Your task to perform on an android device: What's the weather? Image 0: 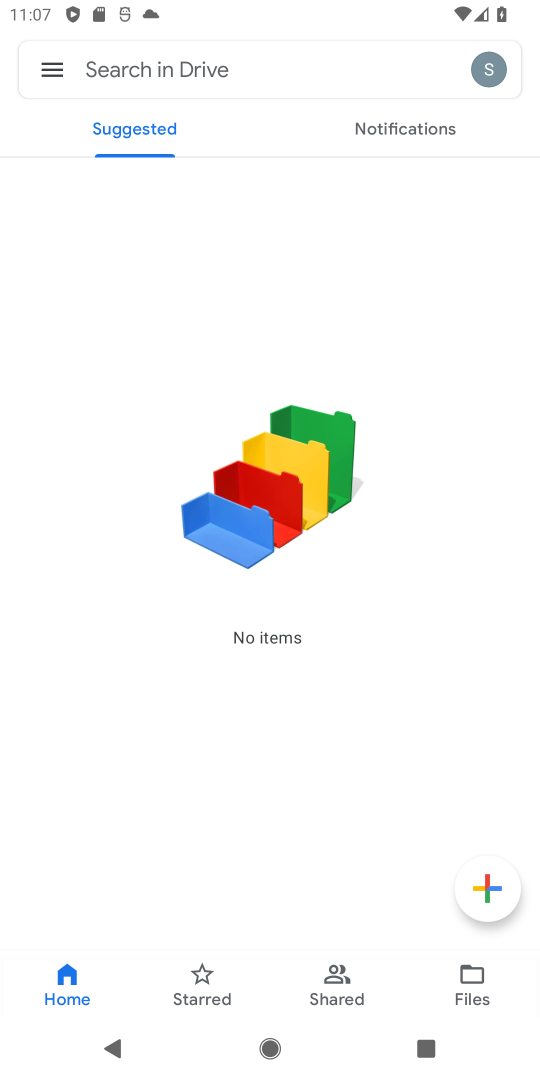
Step 0: press home button
Your task to perform on an android device: What's the weather? Image 1: 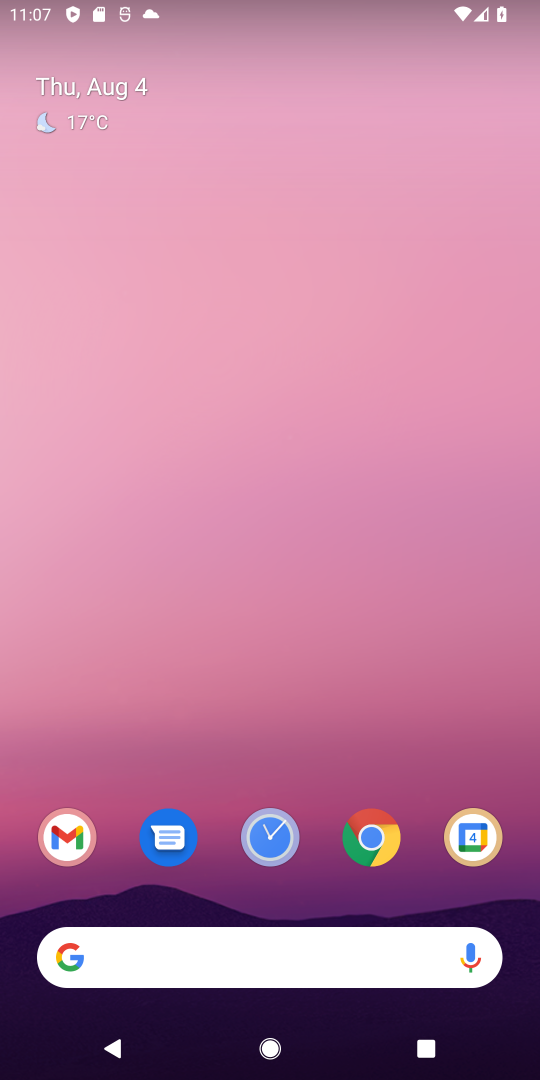
Step 1: drag from (417, 900) to (277, 4)
Your task to perform on an android device: What's the weather? Image 2: 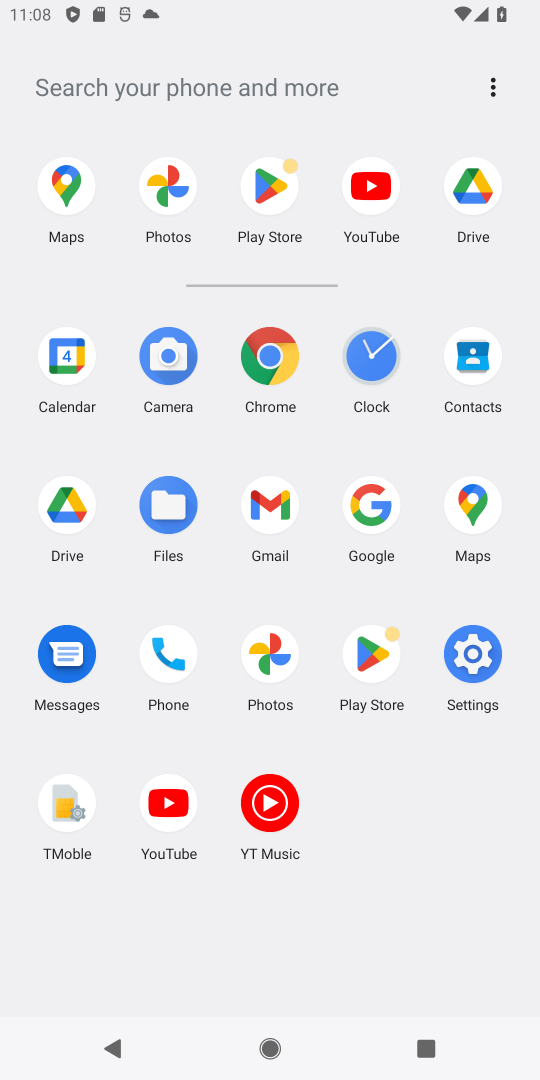
Step 2: click (381, 499)
Your task to perform on an android device: What's the weather? Image 3: 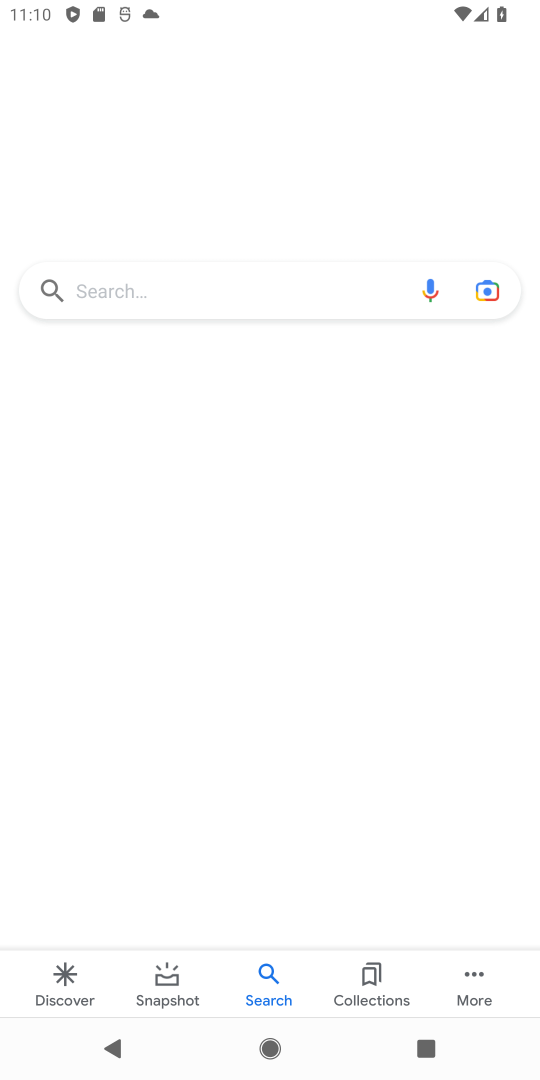
Step 3: click (159, 278)
Your task to perform on an android device: What's the weather? Image 4: 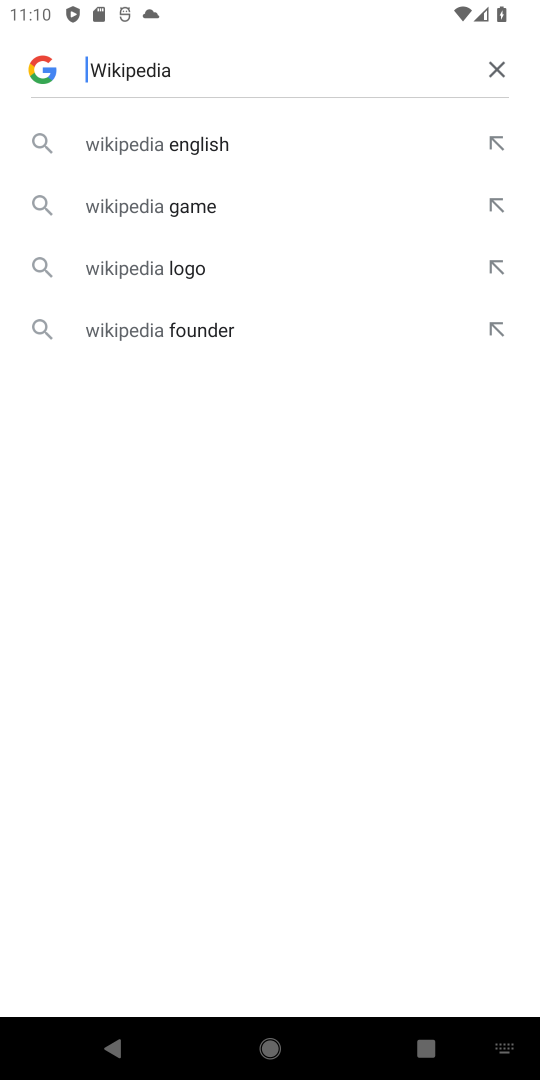
Step 4: click (499, 74)
Your task to perform on an android device: What's the weather? Image 5: 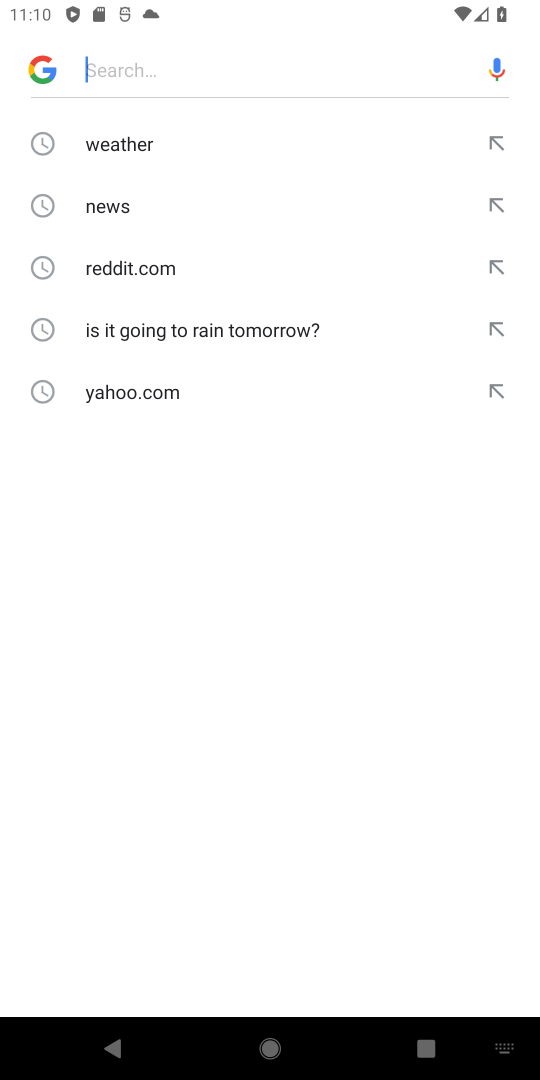
Step 5: type "What's the weather?"
Your task to perform on an android device: What's the weather? Image 6: 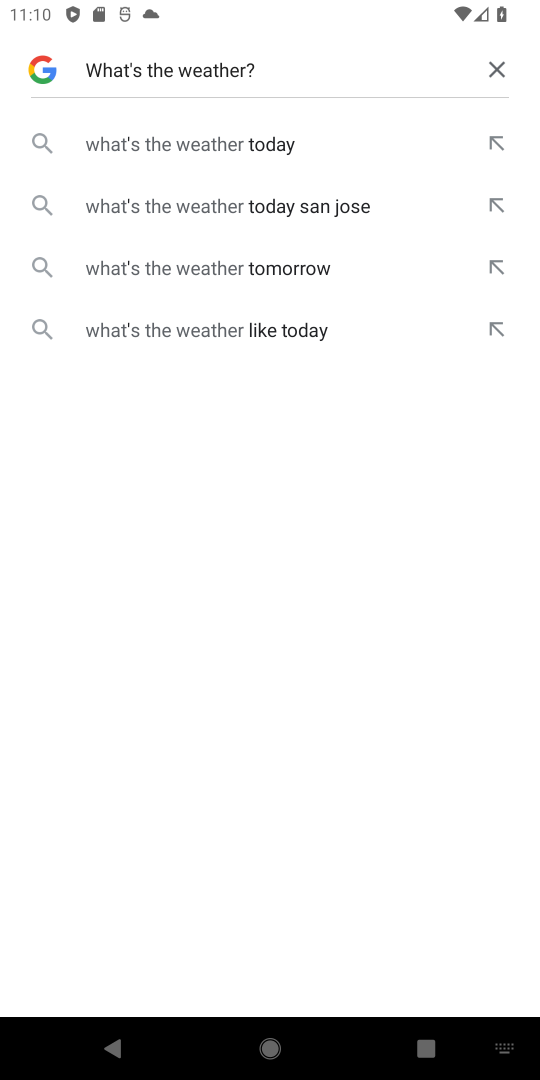
Step 6: click (193, 164)
Your task to perform on an android device: What's the weather? Image 7: 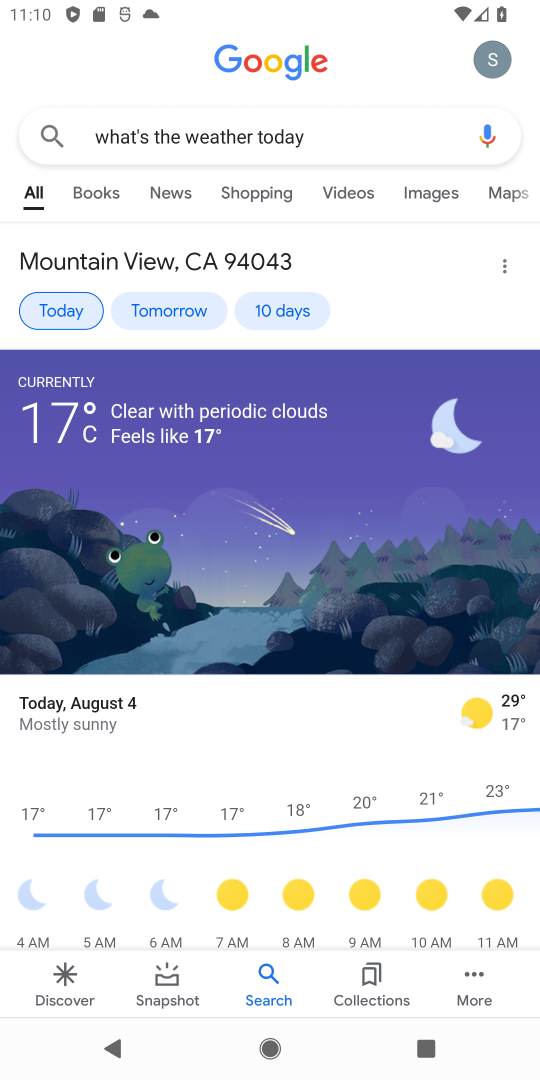
Step 7: task complete